Your task to perform on an android device: delete the emails in spam in the gmail app Image 0: 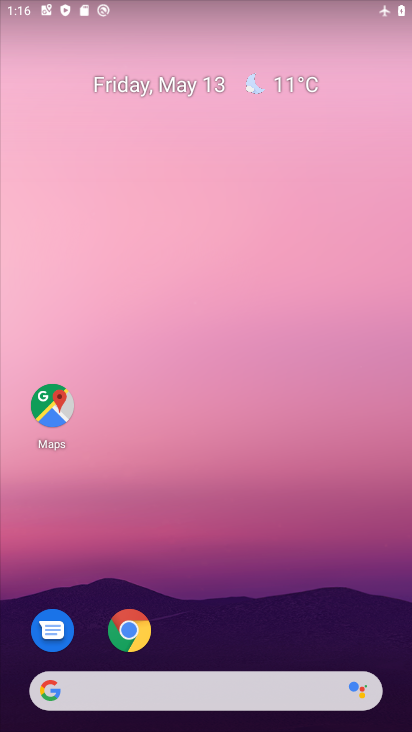
Step 0: drag from (330, 642) to (363, 19)
Your task to perform on an android device: delete the emails in spam in the gmail app Image 1: 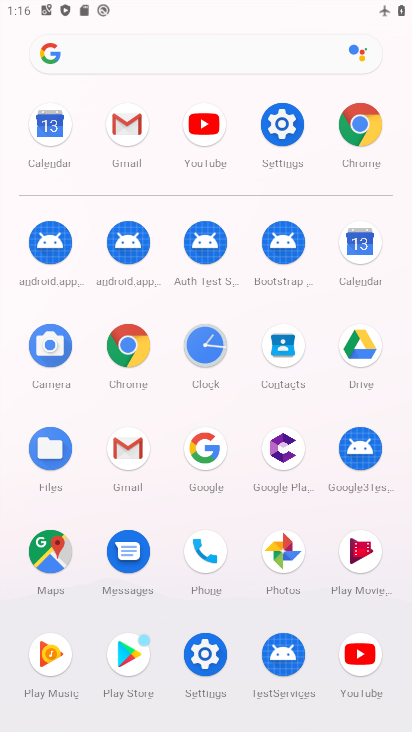
Step 1: click (135, 130)
Your task to perform on an android device: delete the emails in spam in the gmail app Image 2: 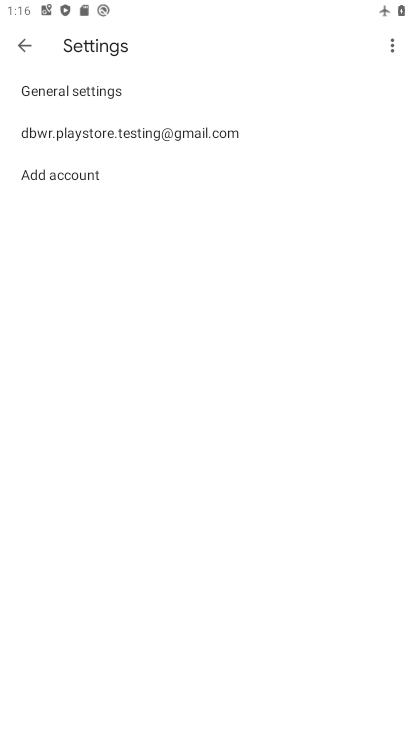
Step 2: click (16, 43)
Your task to perform on an android device: delete the emails in spam in the gmail app Image 3: 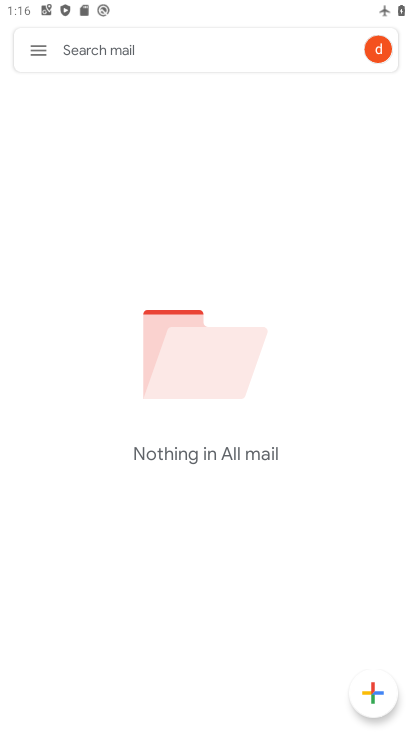
Step 3: click (50, 59)
Your task to perform on an android device: delete the emails in spam in the gmail app Image 4: 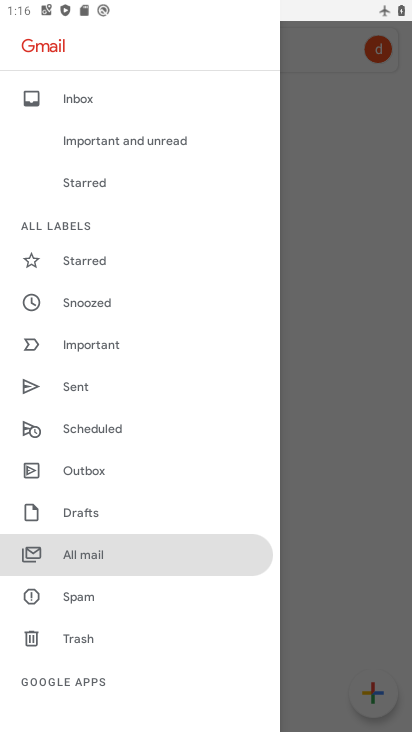
Step 4: click (86, 589)
Your task to perform on an android device: delete the emails in spam in the gmail app Image 5: 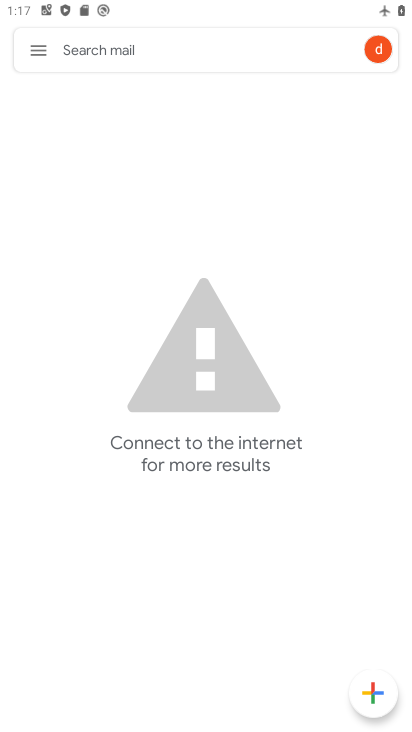
Step 5: task complete